Your task to perform on an android device: Check the news Image 0: 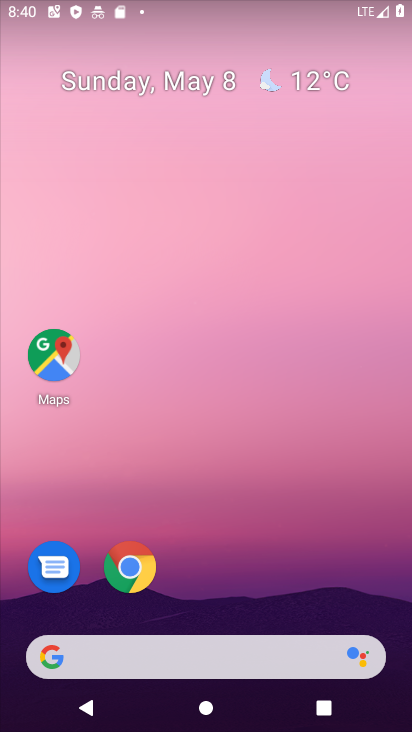
Step 0: drag from (26, 224) to (403, 265)
Your task to perform on an android device: Check the news Image 1: 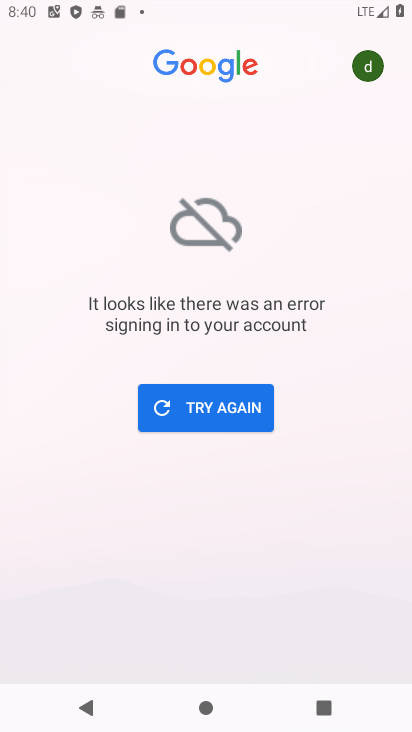
Step 1: click (202, 389)
Your task to perform on an android device: Check the news Image 2: 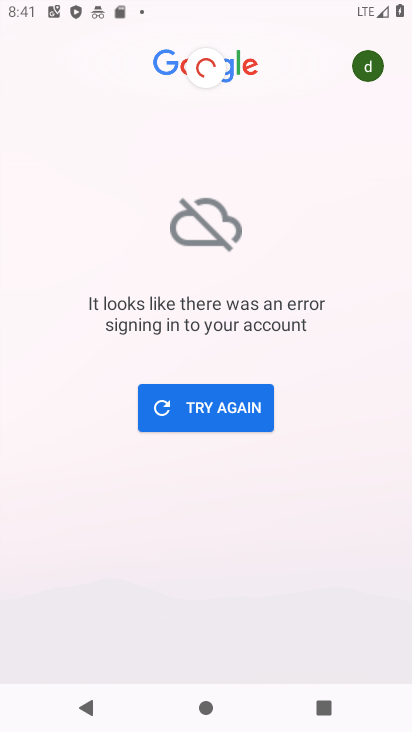
Step 2: task complete